Your task to perform on an android device: See recent photos Image 0: 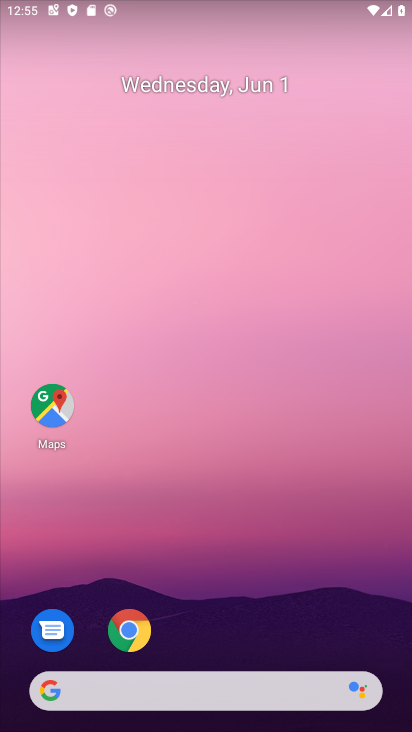
Step 0: press home button
Your task to perform on an android device: See recent photos Image 1: 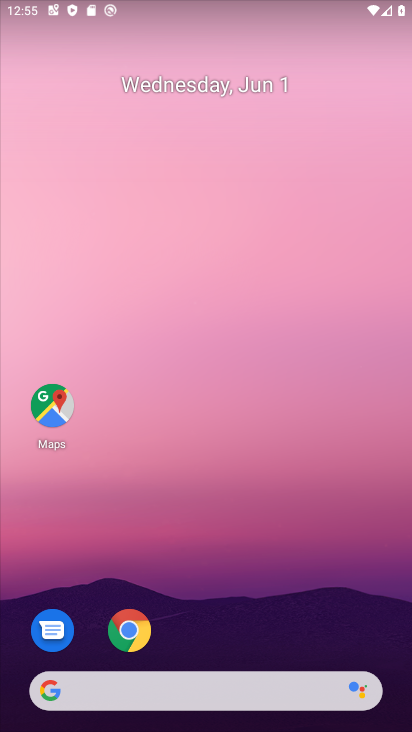
Step 1: drag from (300, 615) to (315, 181)
Your task to perform on an android device: See recent photos Image 2: 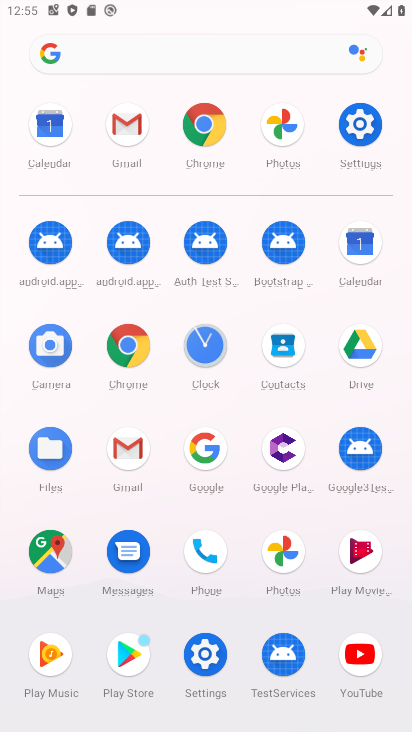
Step 2: click (286, 127)
Your task to perform on an android device: See recent photos Image 3: 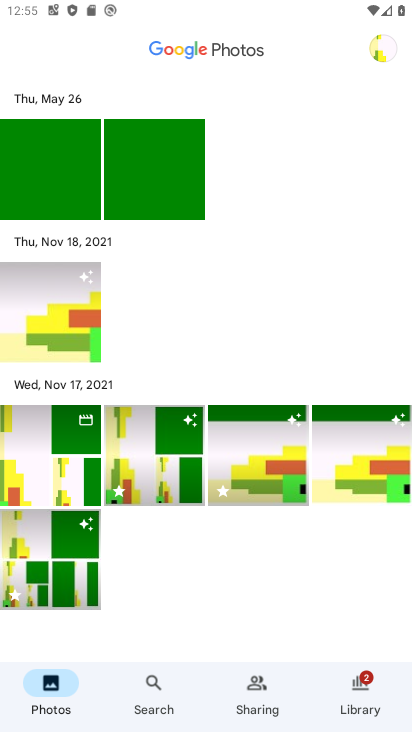
Step 3: task complete